Your task to perform on an android device: Open sound settings Image 0: 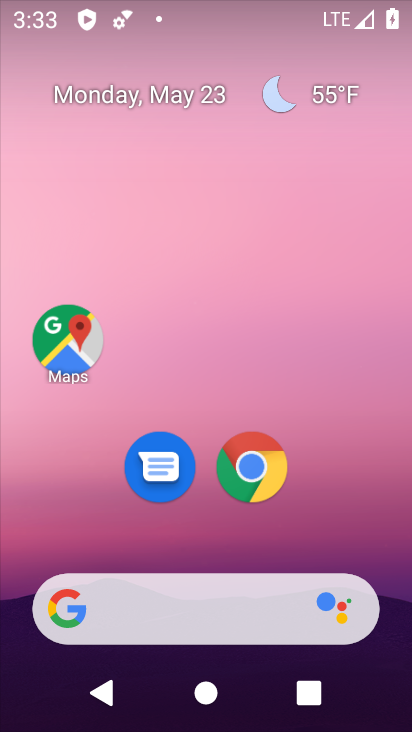
Step 0: drag from (205, 513) to (259, 169)
Your task to perform on an android device: Open sound settings Image 1: 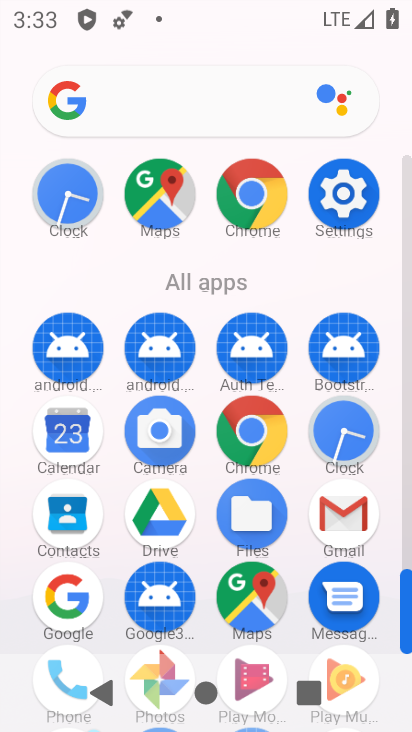
Step 1: click (345, 191)
Your task to perform on an android device: Open sound settings Image 2: 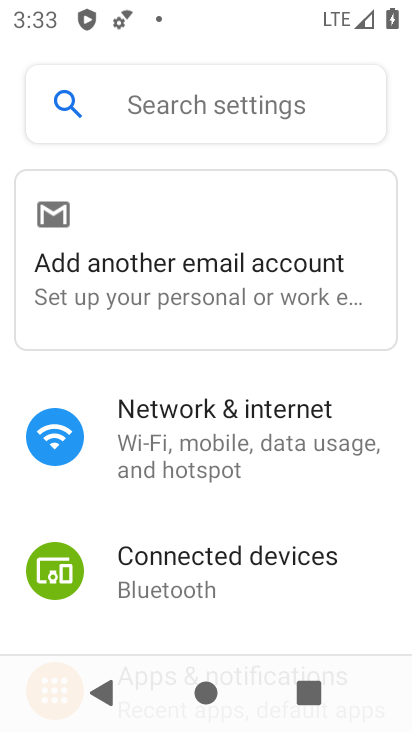
Step 2: drag from (193, 606) to (336, 219)
Your task to perform on an android device: Open sound settings Image 3: 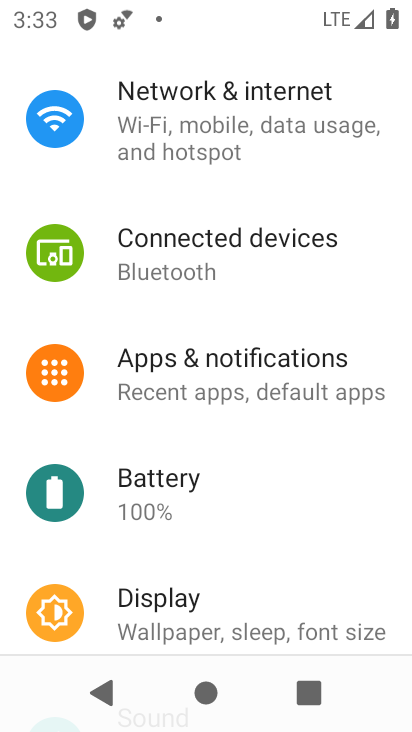
Step 3: drag from (195, 557) to (272, 251)
Your task to perform on an android device: Open sound settings Image 4: 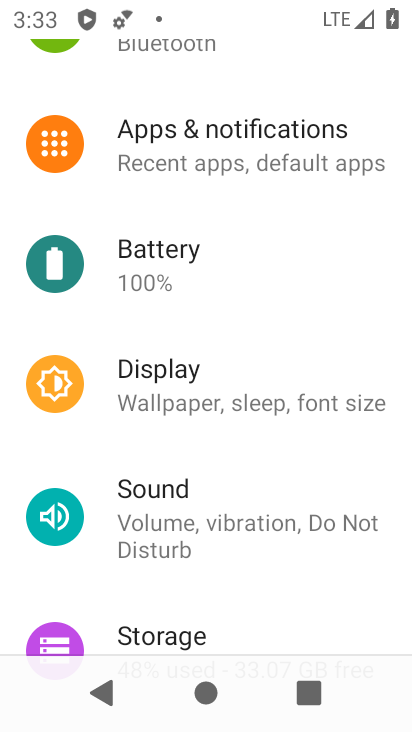
Step 4: click (164, 498)
Your task to perform on an android device: Open sound settings Image 5: 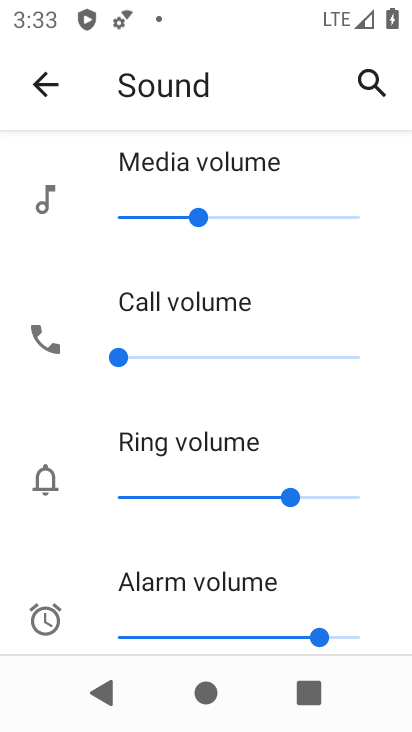
Step 5: task complete